Your task to perform on an android device: Is it going to rain this weekend? Image 0: 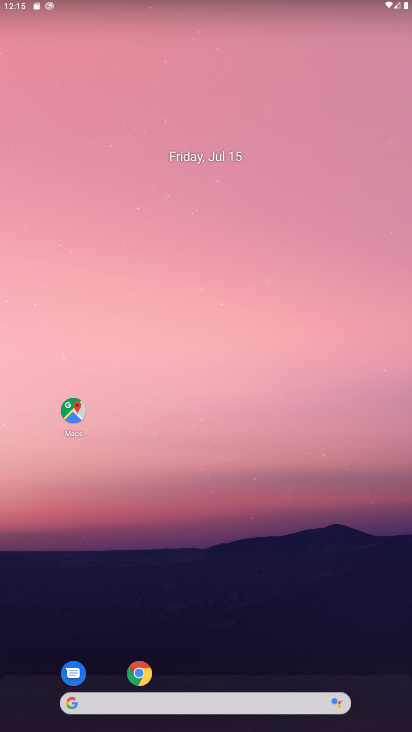
Step 0: click (149, 710)
Your task to perform on an android device: Is it going to rain this weekend? Image 1: 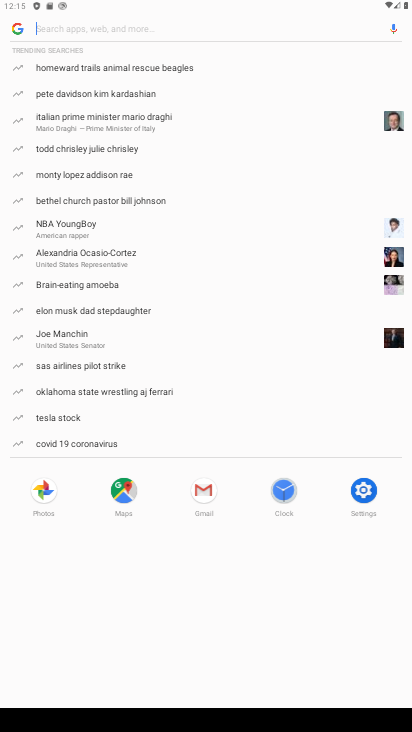
Step 1: type "weather"
Your task to perform on an android device: Is it going to rain this weekend? Image 2: 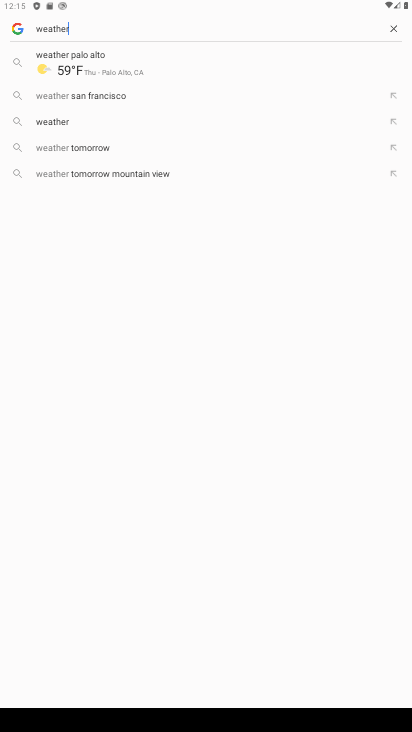
Step 2: click (74, 119)
Your task to perform on an android device: Is it going to rain this weekend? Image 3: 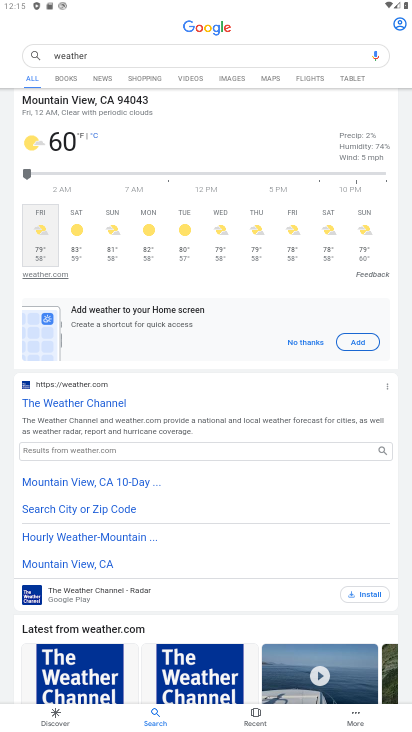
Step 3: task complete